Your task to perform on an android device: Go to notification settings Image 0: 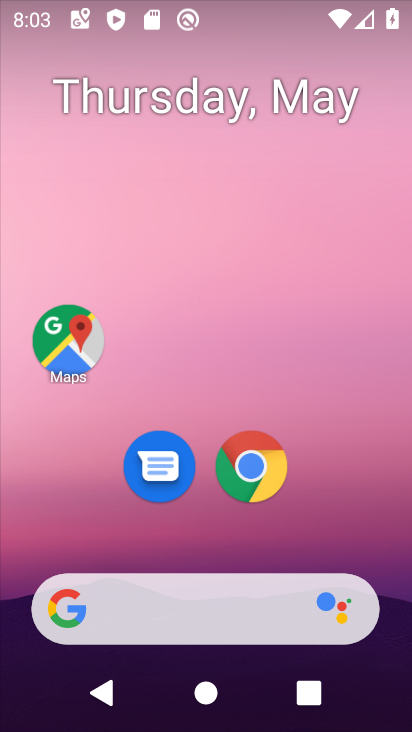
Step 0: drag from (356, 566) to (333, 17)
Your task to perform on an android device: Go to notification settings Image 1: 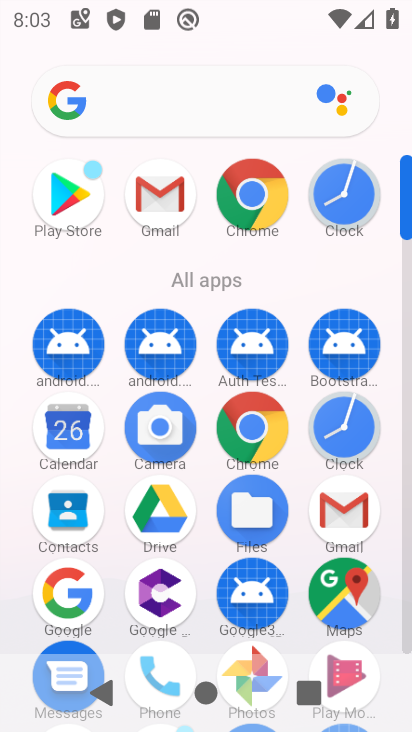
Step 1: click (404, 408)
Your task to perform on an android device: Go to notification settings Image 2: 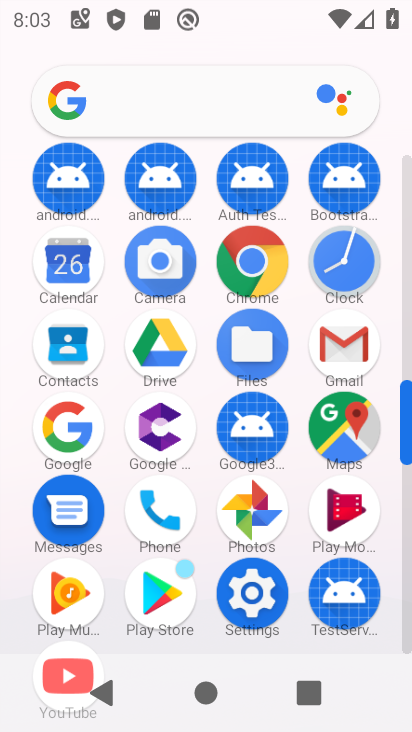
Step 2: click (256, 592)
Your task to perform on an android device: Go to notification settings Image 3: 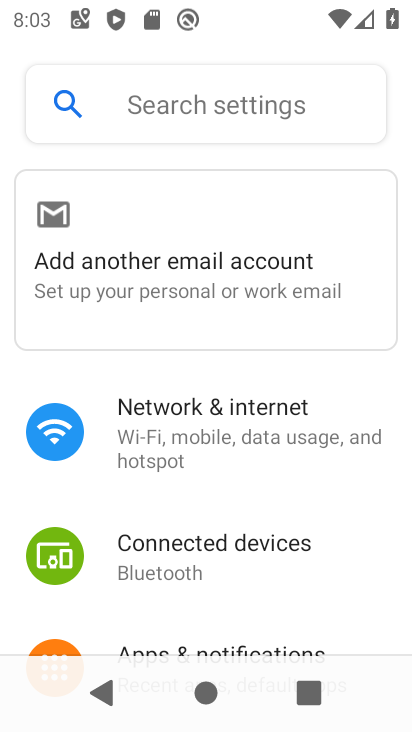
Step 3: drag from (347, 566) to (360, 359)
Your task to perform on an android device: Go to notification settings Image 4: 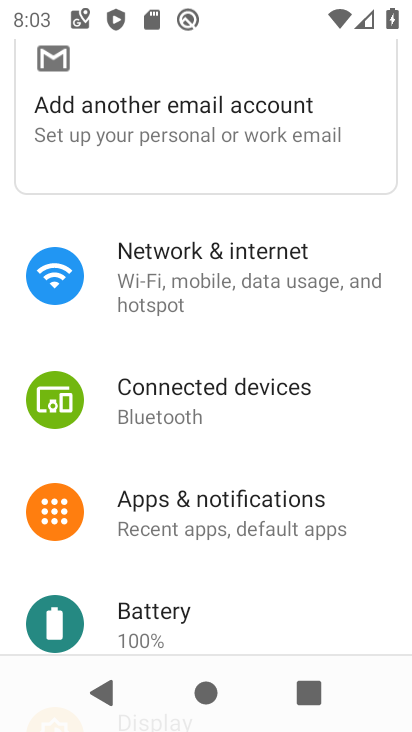
Step 4: click (197, 511)
Your task to perform on an android device: Go to notification settings Image 5: 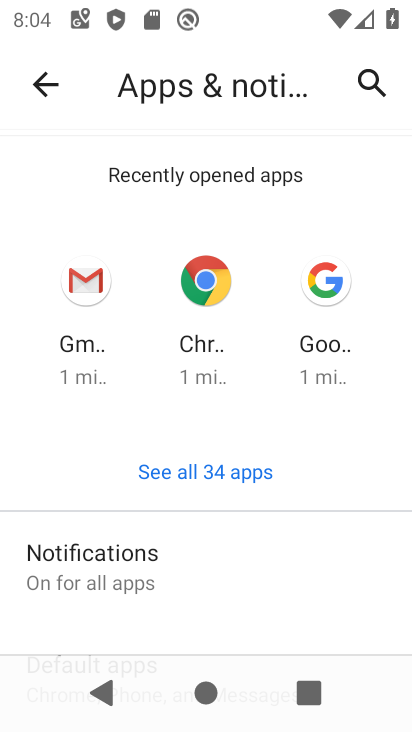
Step 5: task complete